Your task to perform on an android device: change timer sound Image 0: 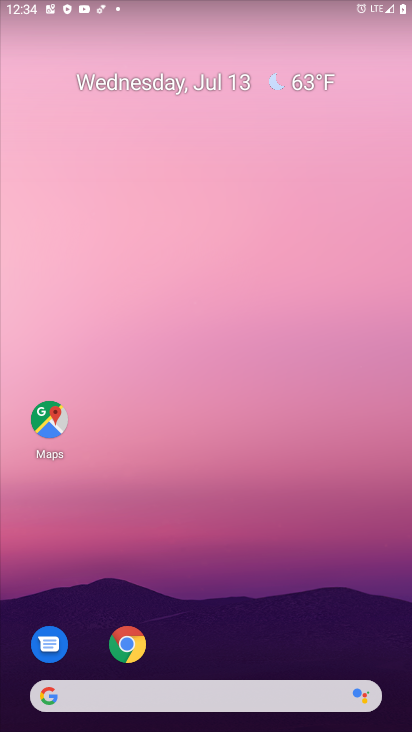
Step 0: drag from (201, 693) to (241, 154)
Your task to perform on an android device: change timer sound Image 1: 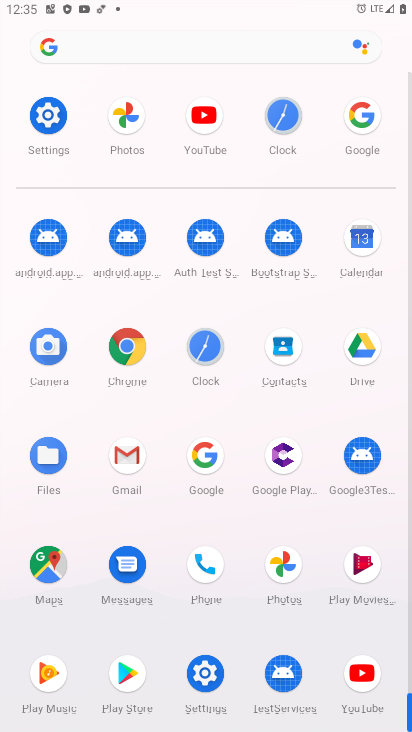
Step 1: click (282, 112)
Your task to perform on an android device: change timer sound Image 2: 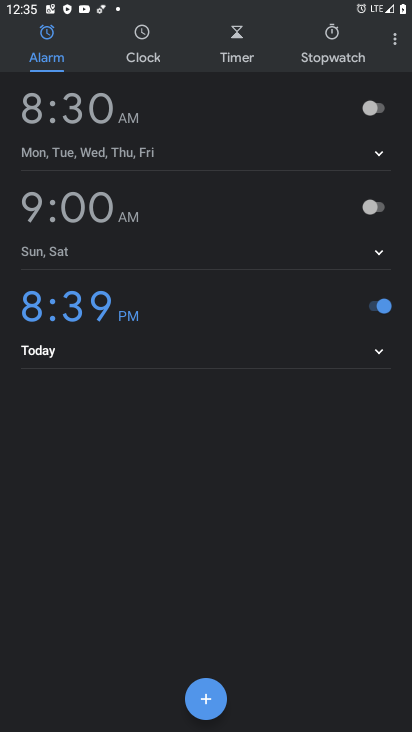
Step 2: click (397, 41)
Your task to perform on an android device: change timer sound Image 3: 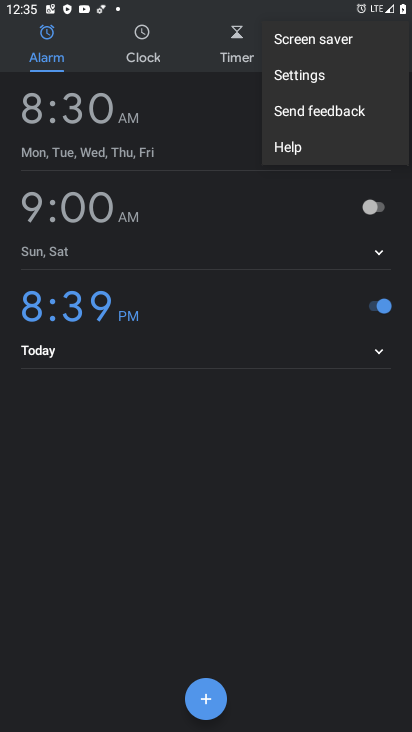
Step 3: click (324, 78)
Your task to perform on an android device: change timer sound Image 4: 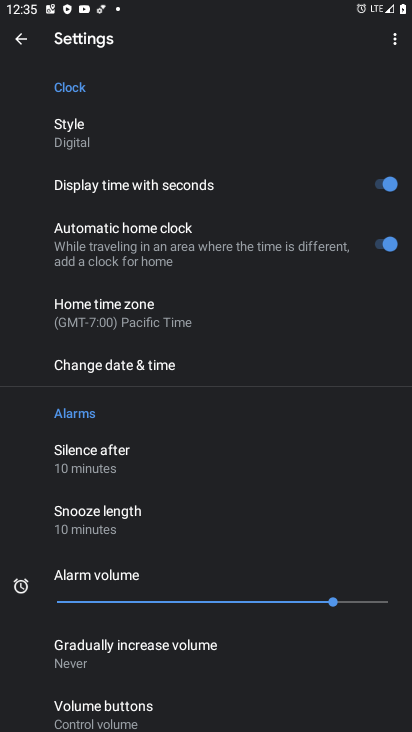
Step 4: drag from (161, 553) to (220, 417)
Your task to perform on an android device: change timer sound Image 5: 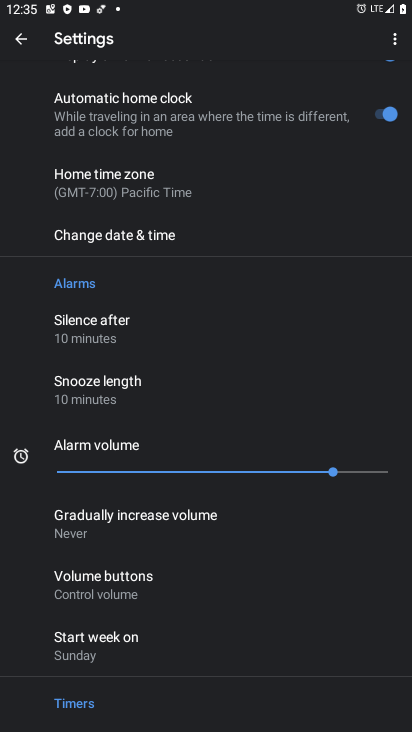
Step 5: drag from (202, 590) to (327, 295)
Your task to perform on an android device: change timer sound Image 6: 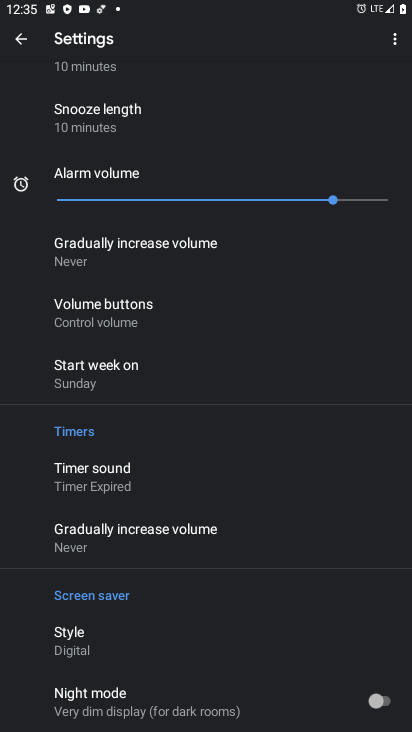
Step 6: click (114, 471)
Your task to perform on an android device: change timer sound Image 7: 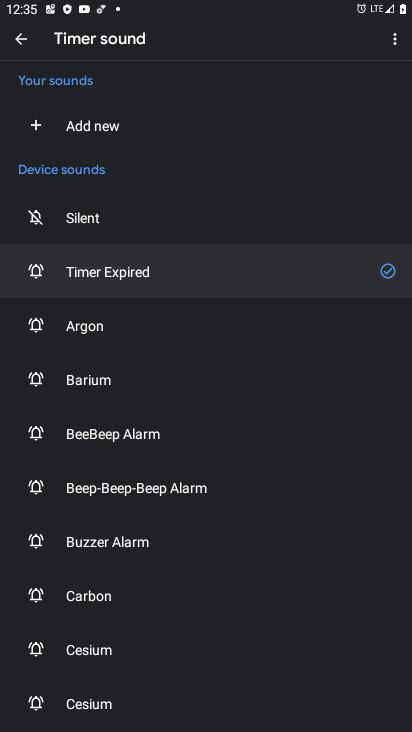
Step 7: drag from (130, 616) to (188, 491)
Your task to perform on an android device: change timer sound Image 8: 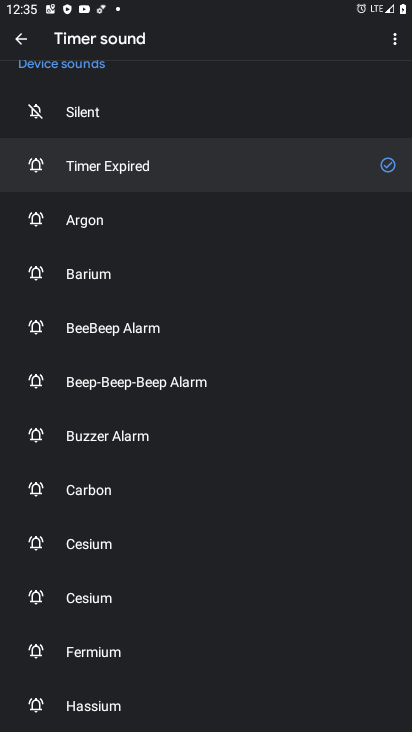
Step 8: drag from (178, 580) to (210, 512)
Your task to perform on an android device: change timer sound Image 9: 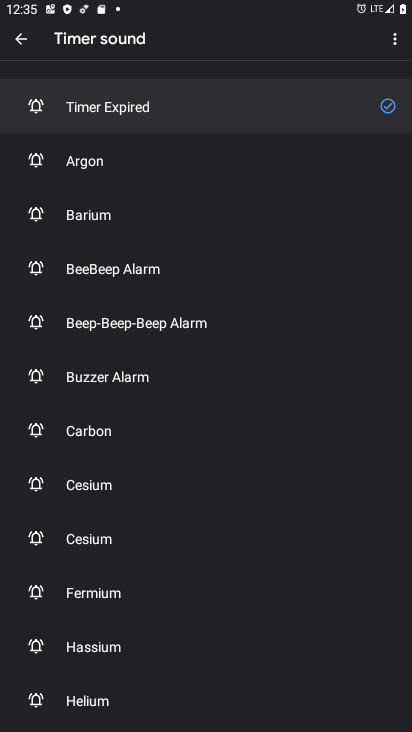
Step 9: click (118, 636)
Your task to perform on an android device: change timer sound Image 10: 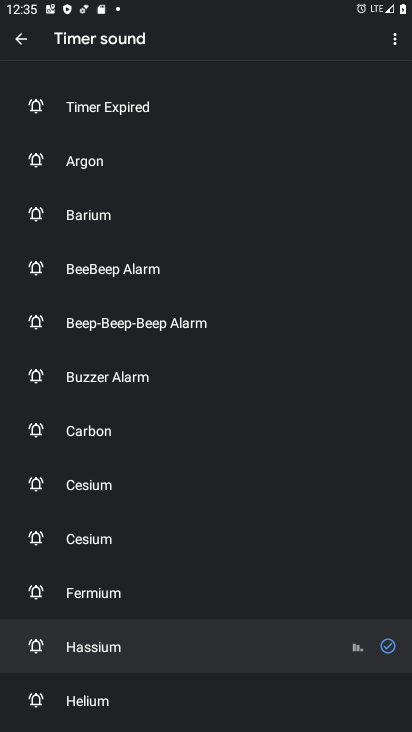
Step 10: task complete